Your task to perform on an android device: turn off airplane mode Image 0: 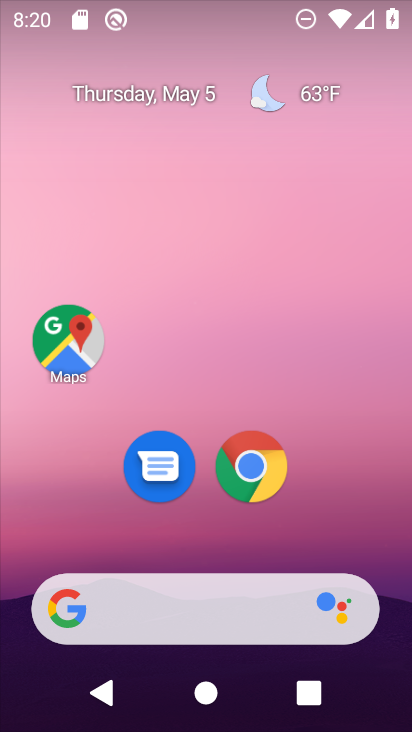
Step 0: drag from (185, 627) to (217, 77)
Your task to perform on an android device: turn off airplane mode Image 1: 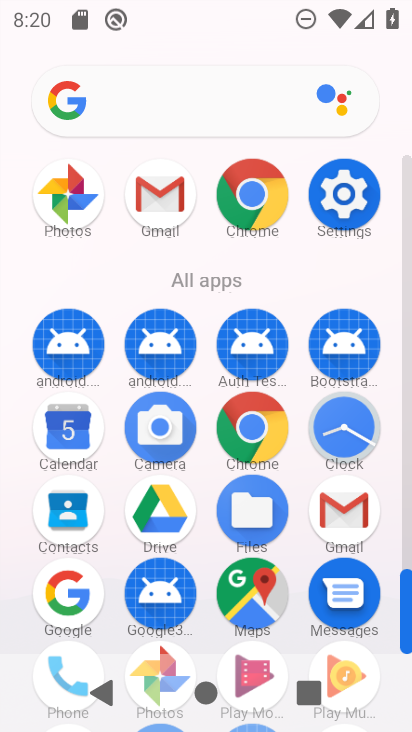
Step 1: click (366, 214)
Your task to perform on an android device: turn off airplane mode Image 2: 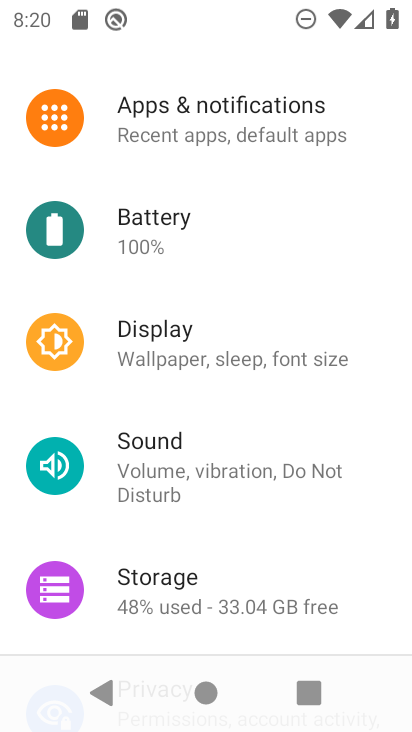
Step 2: drag from (102, 141) to (144, 582)
Your task to perform on an android device: turn off airplane mode Image 3: 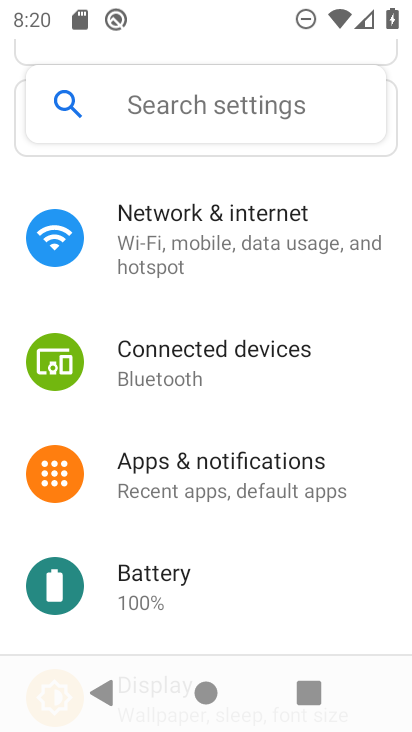
Step 3: drag from (226, 142) to (353, 688)
Your task to perform on an android device: turn off airplane mode Image 4: 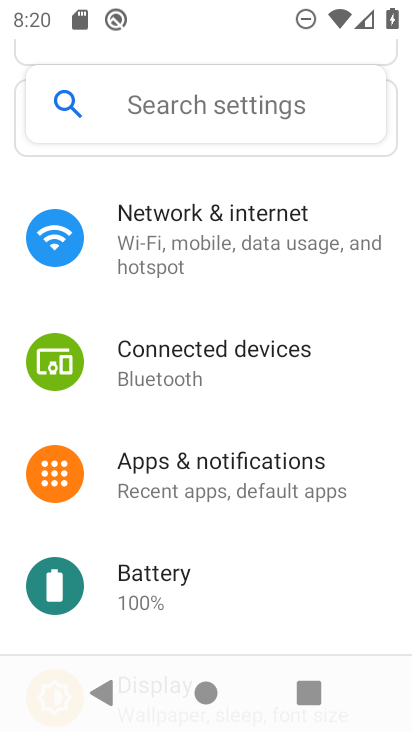
Step 4: drag from (255, 157) to (368, 623)
Your task to perform on an android device: turn off airplane mode Image 5: 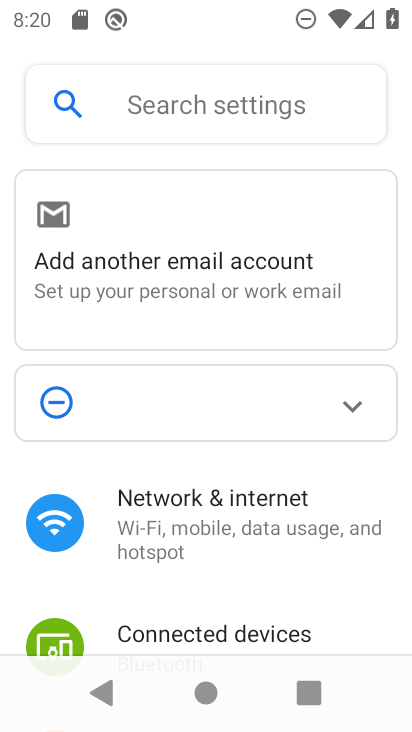
Step 5: click (253, 507)
Your task to perform on an android device: turn off airplane mode Image 6: 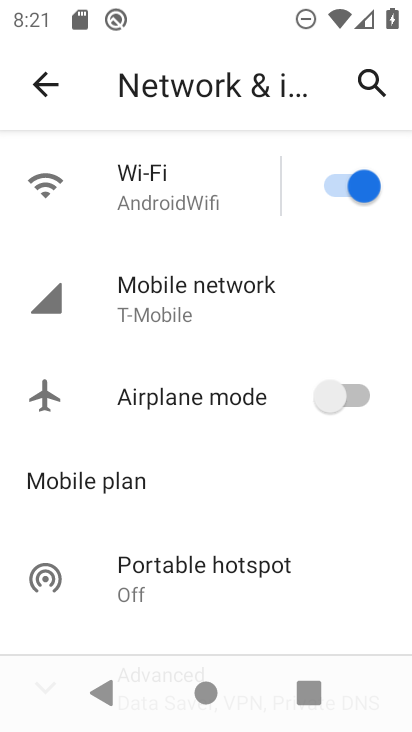
Step 6: task complete